Your task to perform on an android device: Toggle the flashlight Image 0: 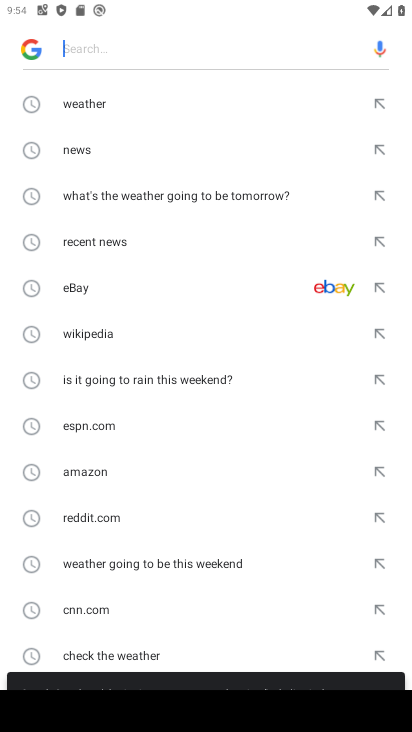
Step 0: press home button
Your task to perform on an android device: Toggle the flashlight Image 1: 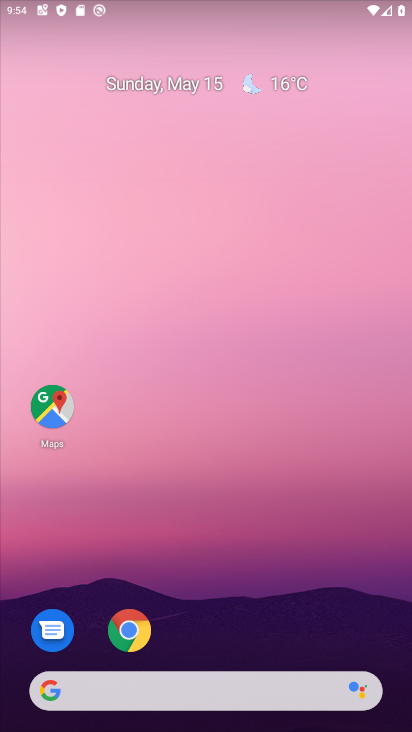
Step 1: drag from (253, 620) to (276, 123)
Your task to perform on an android device: Toggle the flashlight Image 2: 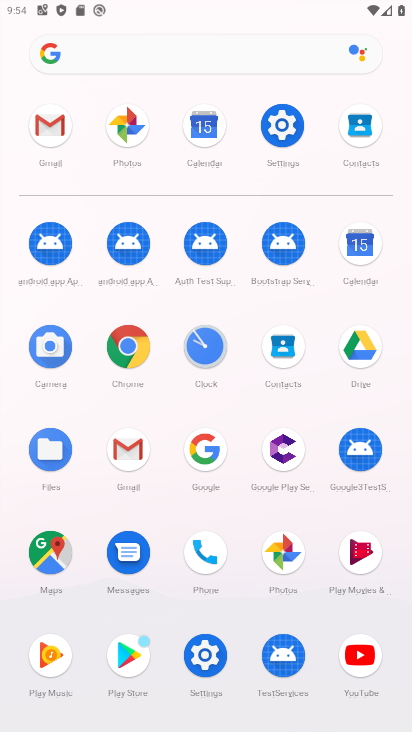
Step 2: click (284, 132)
Your task to perform on an android device: Toggle the flashlight Image 3: 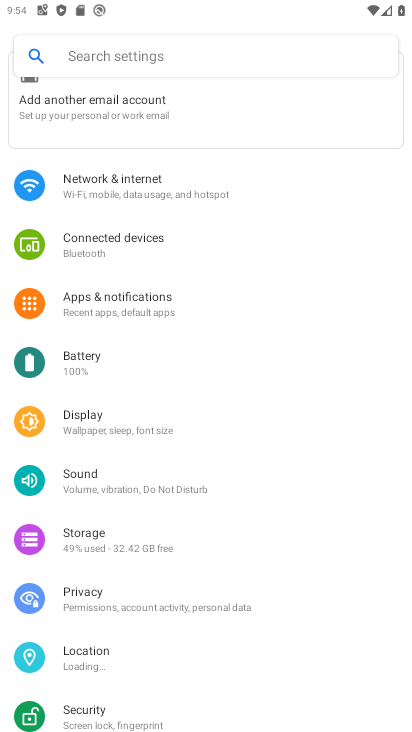
Step 3: task complete